Your task to perform on an android device: Go to internet settings Image 0: 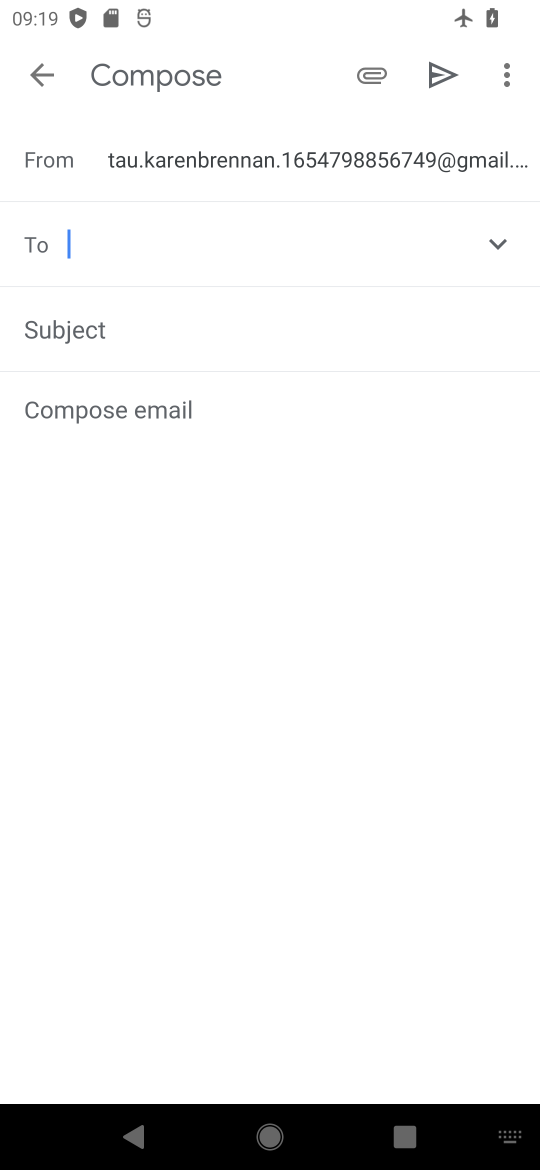
Step 0: press home button
Your task to perform on an android device: Go to internet settings Image 1: 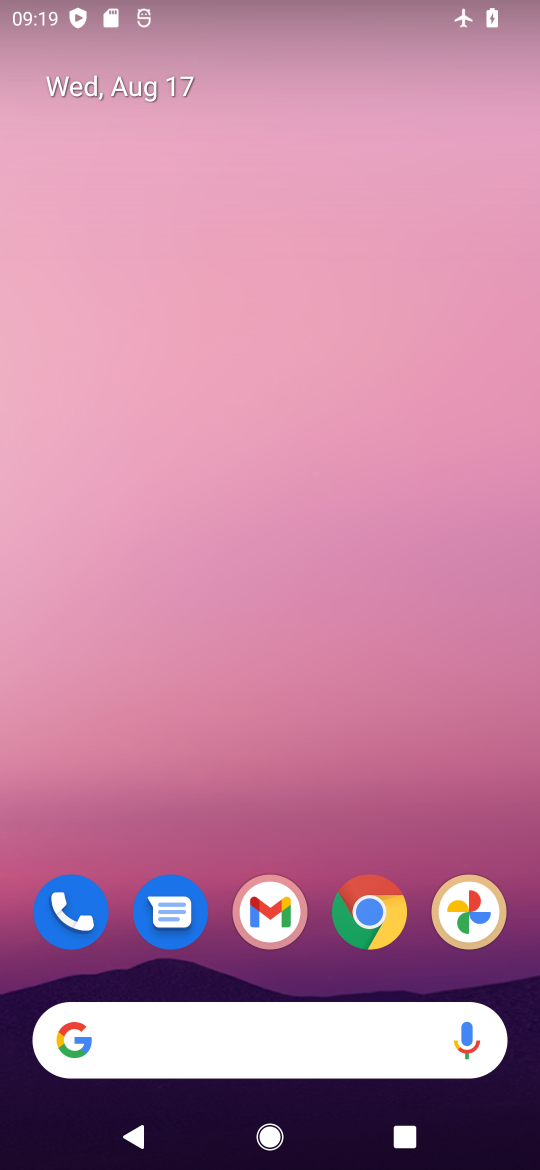
Step 1: drag from (281, 1031) to (383, 136)
Your task to perform on an android device: Go to internet settings Image 2: 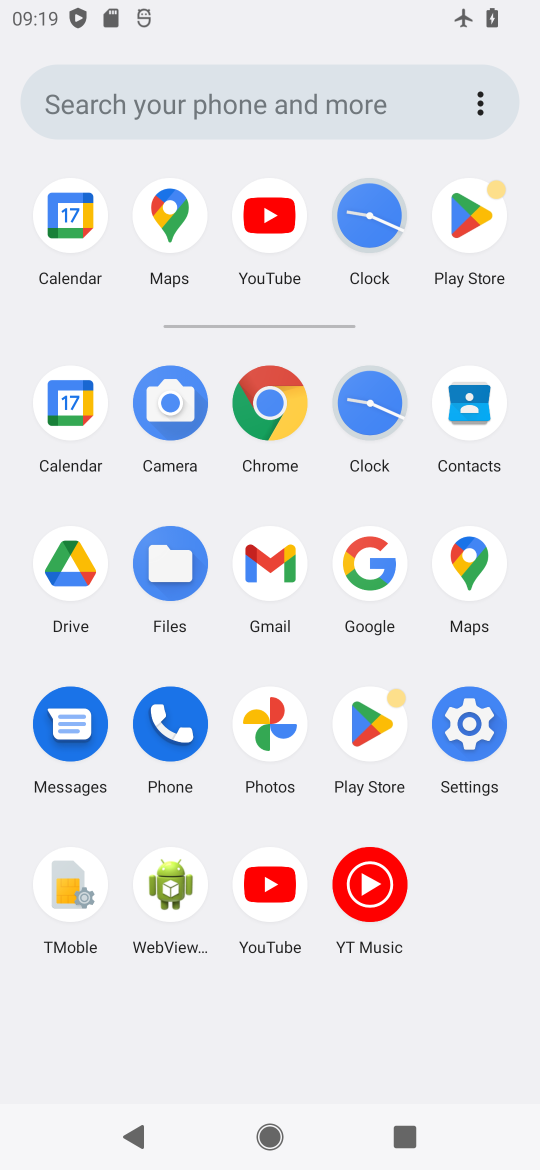
Step 2: click (464, 716)
Your task to perform on an android device: Go to internet settings Image 3: 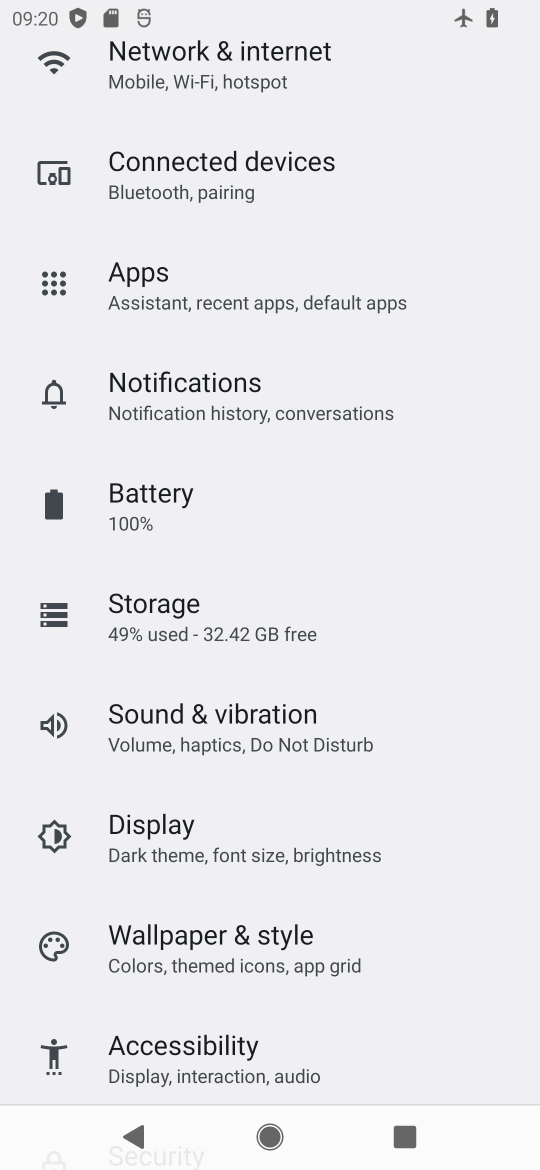
Step 3: drag from (217, 135) to (170, 707)
Your task to perform on an android device: Go to internet settings Image 4: 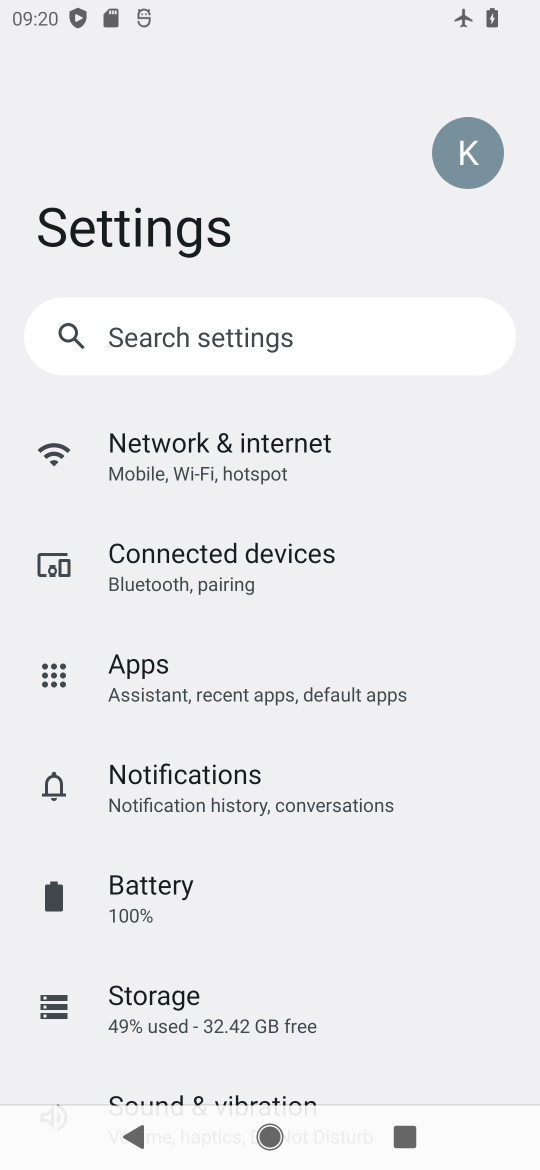
Step 4: click (168, 462)
Your task to perform on an android device: Go to internet settings Image 5: 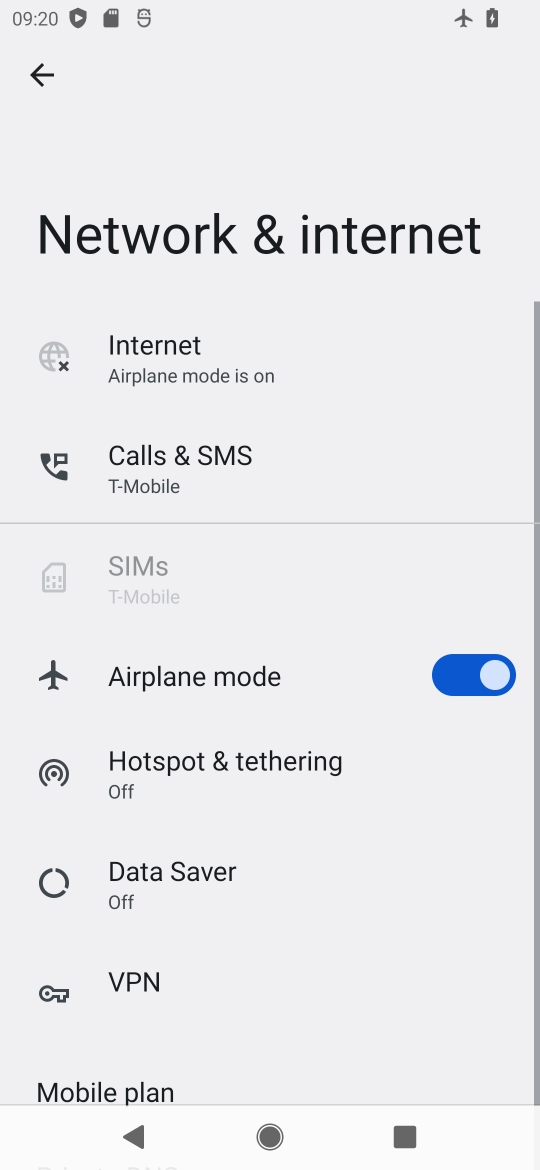
Step 5: task complete